Your task to perform on an android device: What's the weather going to be this weekend? Image 0: 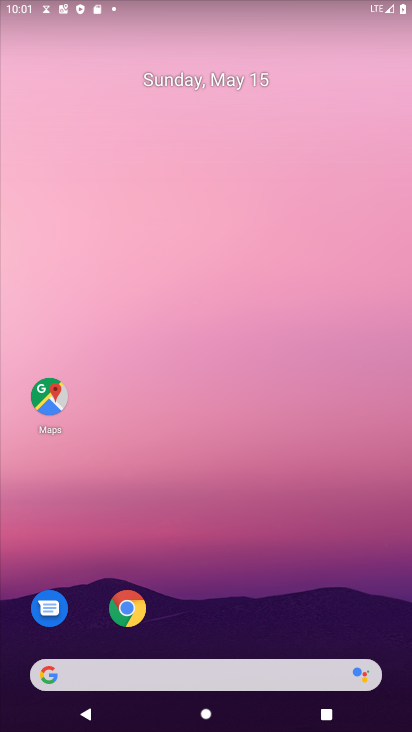
Step 0: press home button
Your task to perform on an android device: What's the weather going to be this weekend? Image 1: 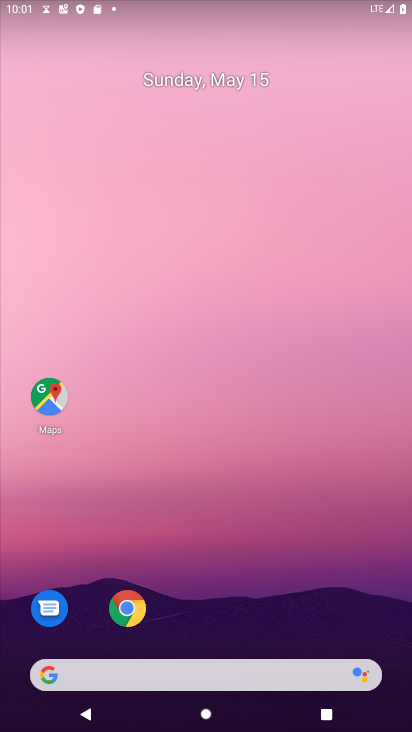
Step 1: drag from (199, 115) to (216, 6)
Your task to perform on an android device: What's the weather going to be this weekend? Image 2: 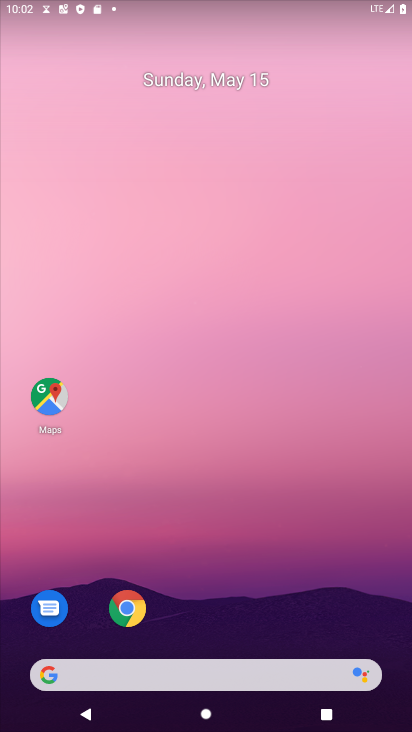
Step 2: drag from (144, 12) to (206, 12)
Your task to perform on an android device: What's the weather going to be this weekend? Image 3: 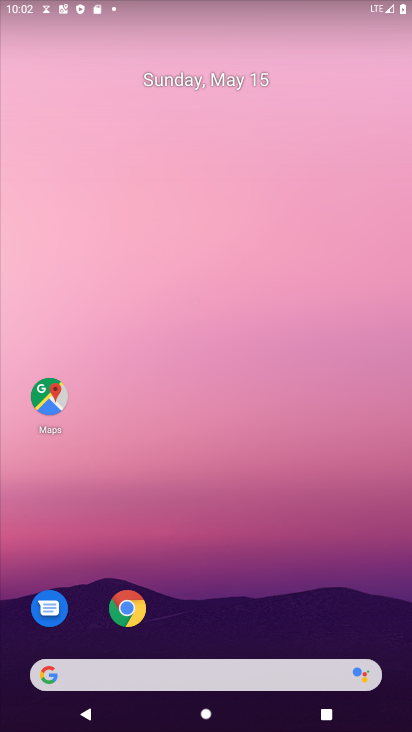
Step 3: drag from (276, 499) to (221, 1)
Your task to perform on an android device: What's the weather going to be this weekend? Image 4: 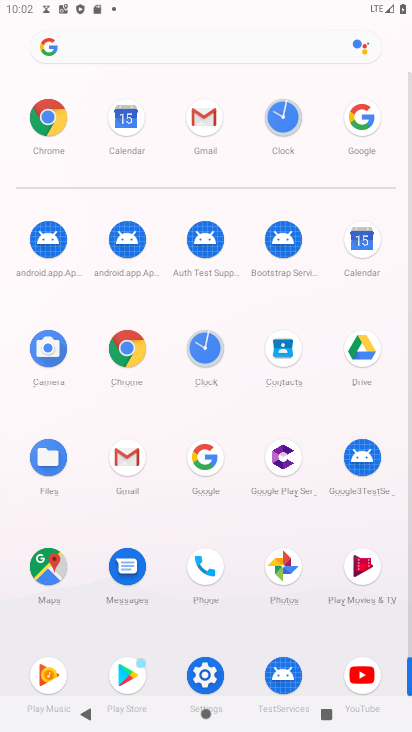
Step 4: click (356, 254)
Your task to perform on an android device: What's the weather going to be this weekend? Image 5: 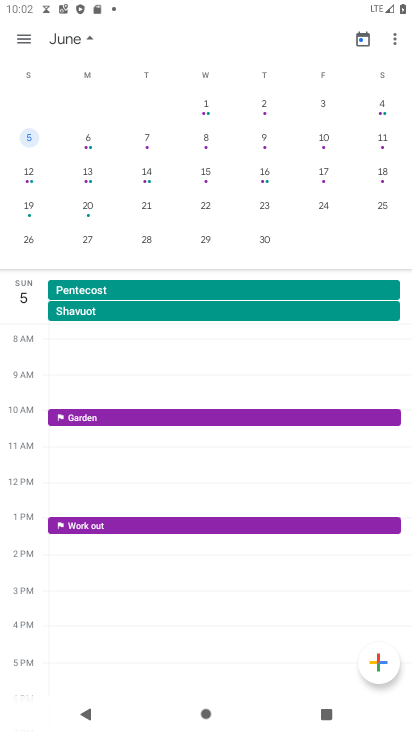
Step 5: press home button
Your task to perform on an android device: What's the weather going to be this weekend? Image 6: 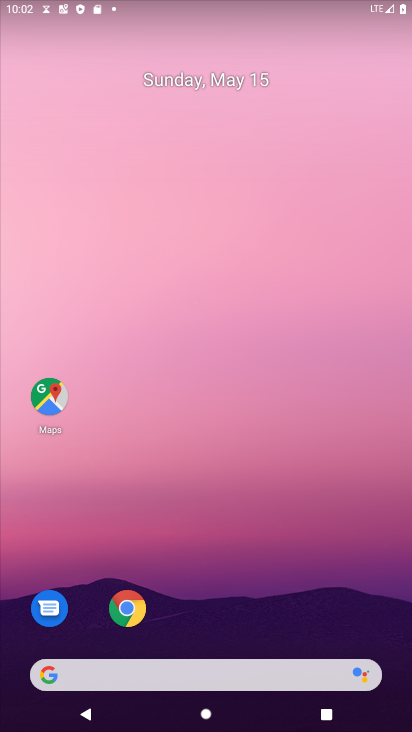
Step 6: click (46, 676)
Your task to perform on an android device: What's the weather going to be this weekend? Image 7: 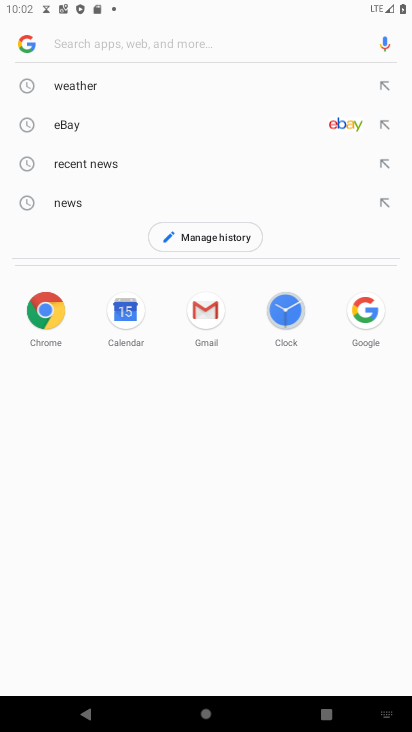
Step 7: click (24, 62)
Your task to perform on an android device: What's the weather going to be this weekend? Image 8: 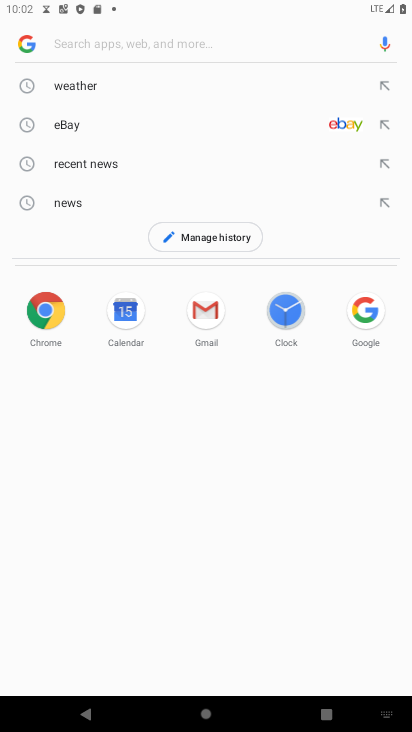
Step 8: click (10, 45)
Your task to perform on an android device: What's the weather going to be this weekend? Image 9: 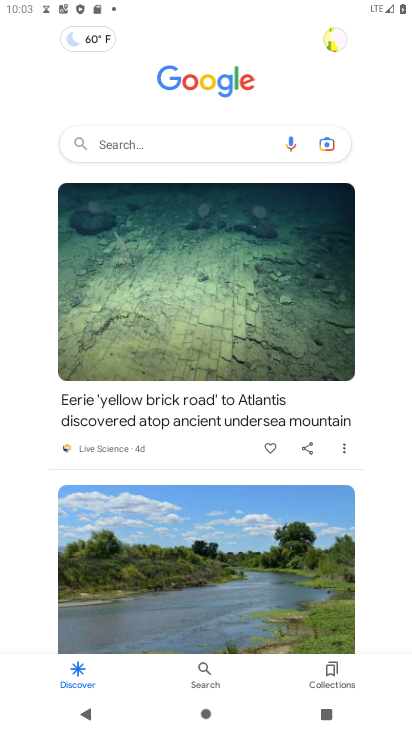
Step 9: click (94, 44)
Your task to perform on an android device: What's the weather going to be this weekend? Image 10: 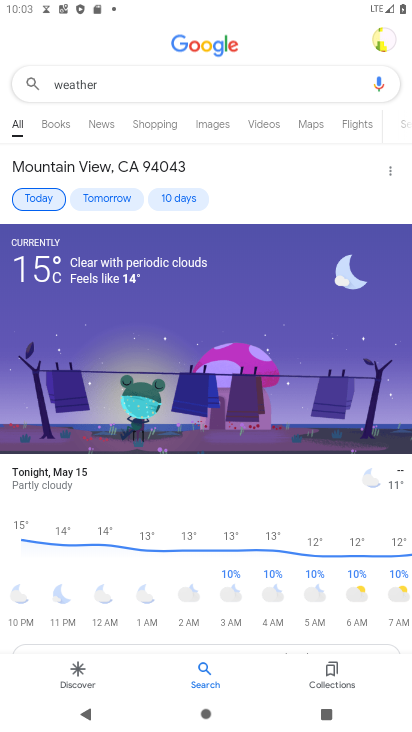
Step 10: click (165, 199)
Your task to perform on an android device: What's the weather going to be this weekend? Image 11: 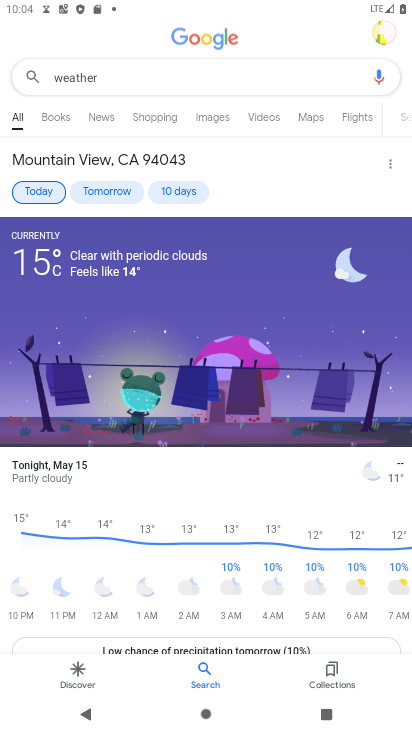
Step 11: task complete